Your task to perform on an android device: change text size in settings app Image 0: 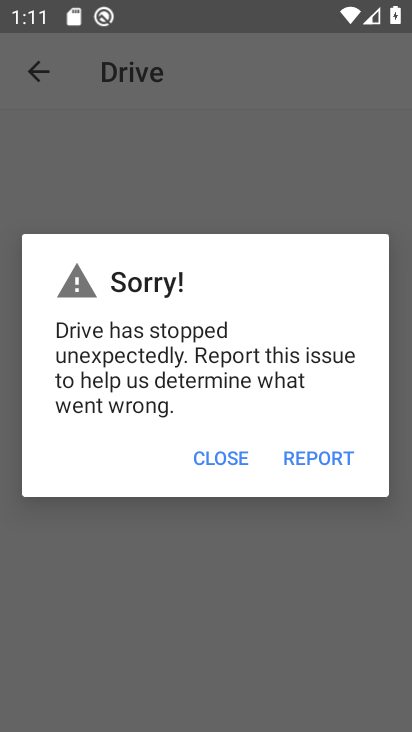
Step 0: press home button
Your task to perform on an android device: change text size in settings app Image 1: 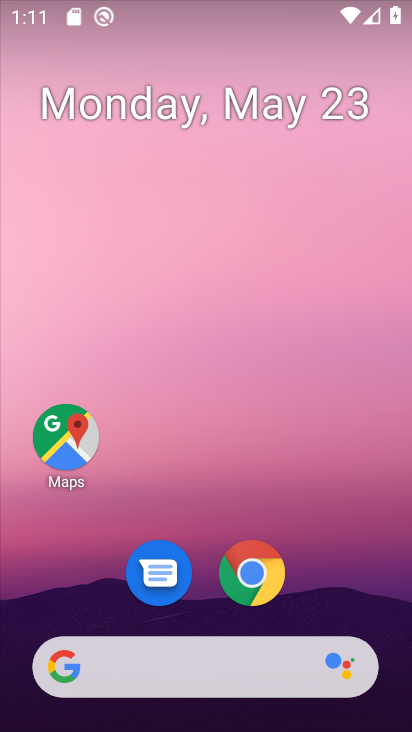
Step 1: drag from (326, 583) to (294, 67)
Your task to perform on an android device: change text size in settings app Image 2: 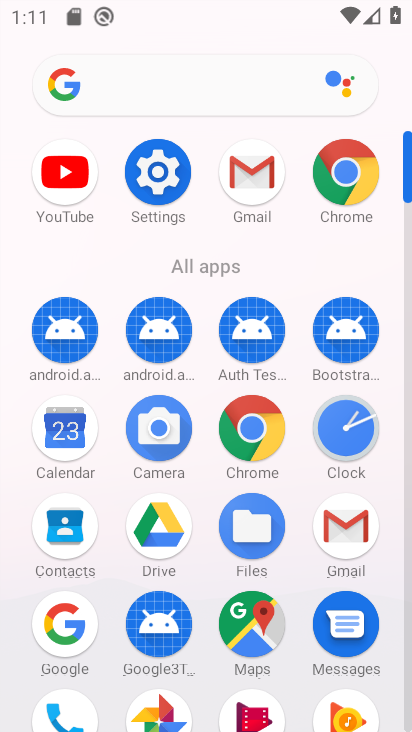
Step 2: click (163, 164)
Your task to perform on an android device: change text size in settings app Image 3: 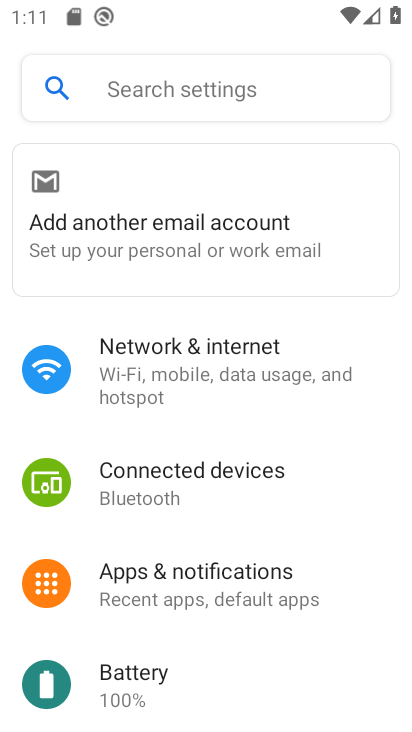
Step 3: drag from (323, 627) to (289, 298)
Your task to perform on an android device: change text size in settings app Image 4: 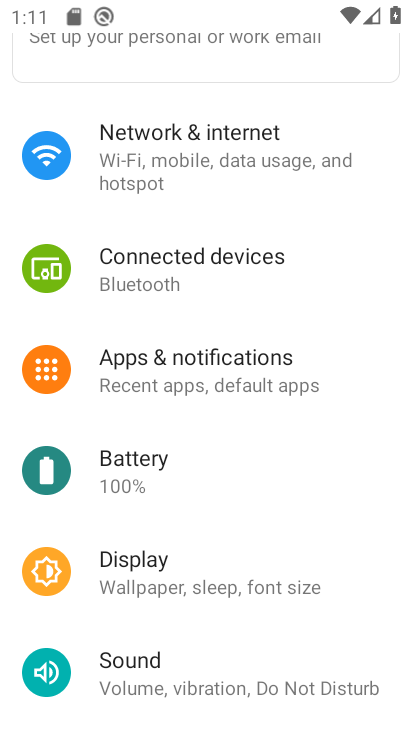
Step 4: drag from (277, 670) to (249, 271)
Your task to perform on an android device: change text size in settings app Image 5: 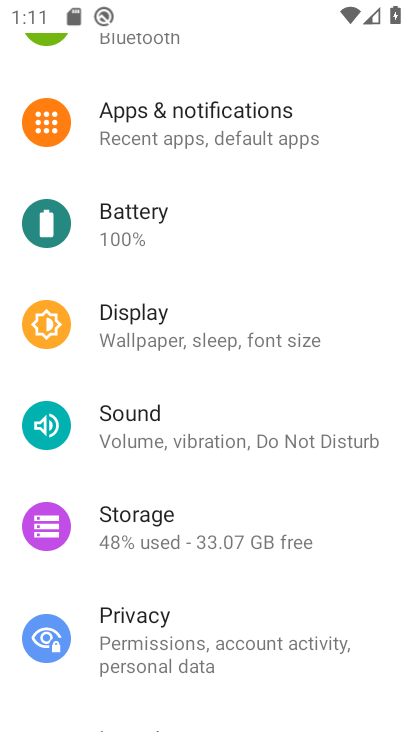
Step 5: click (199, 327)
Your task to perform on an android device: change text size in settings app Image 6: 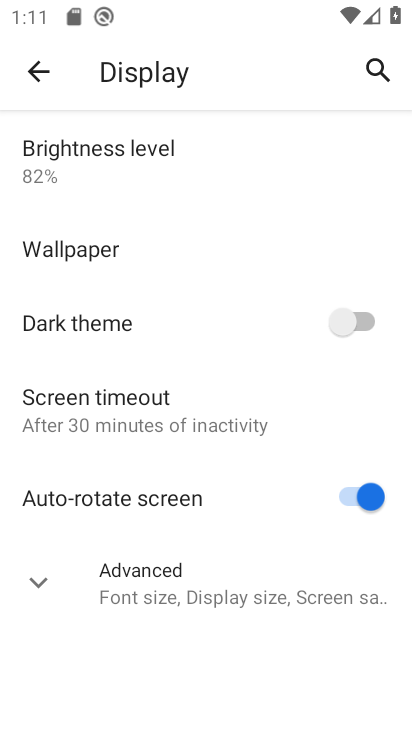
Step 6: click (197, 591)
Your task to perform on an android device: change text size in settings app Image 7: 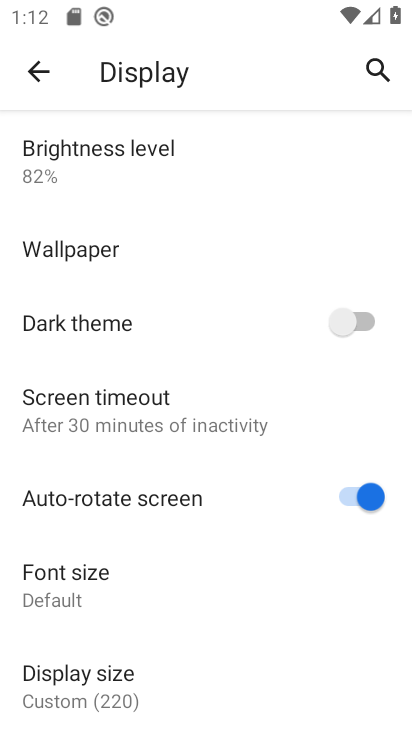
Step 7: click (72, 589)
Your task to perform on an android device: change text size in settings app Image 8: 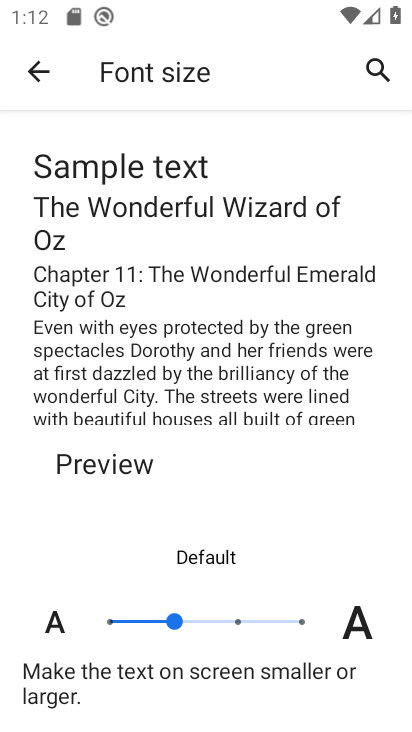
Step 8: click (111, 617)
Your task to perform on an android device: change text size in settings app Image 9: 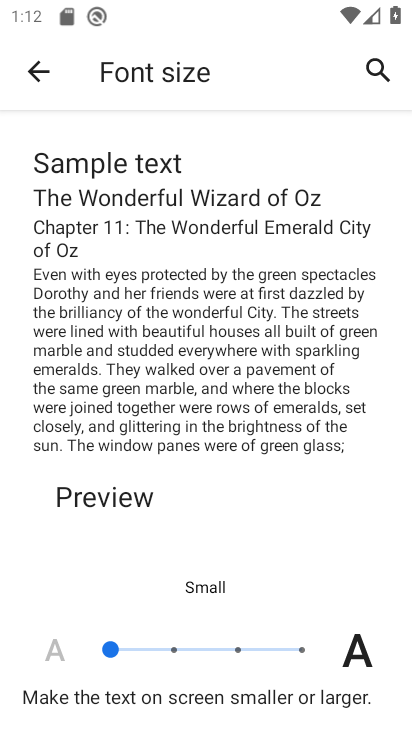
Step 9: task complete